Your task to perform on an android device: Open calendar and show me the fourth week of next month Image 0: 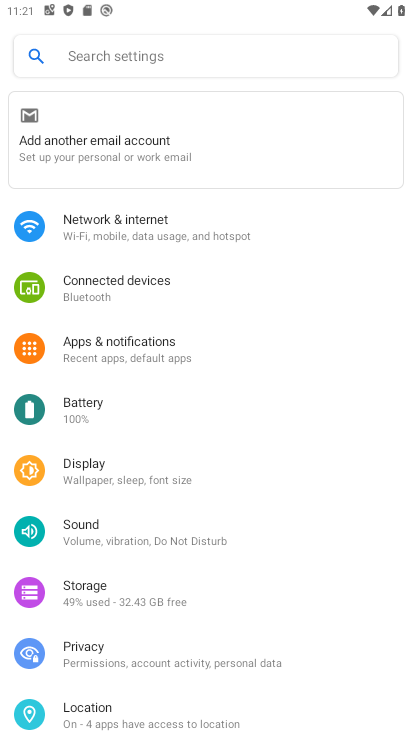
Step 0: press home button
Your task to perform on an android device: Open calendar and show me the fourth week of next month Image 1: 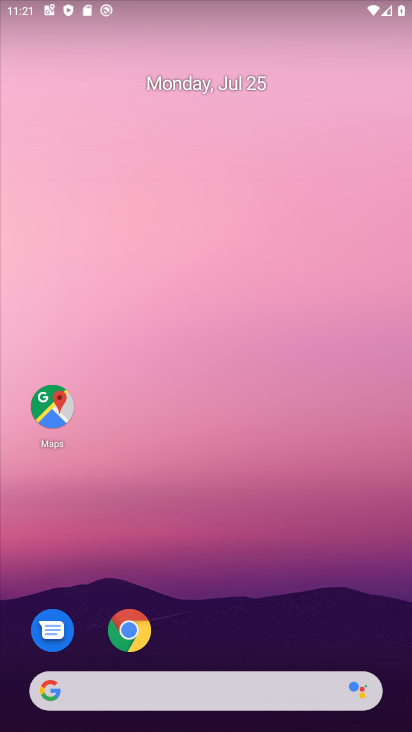
Step 1: drag from (341, 615) to (366, 165)
Your task to perform on an android device: Open calendar and show me the fourth week of next month Image 2: 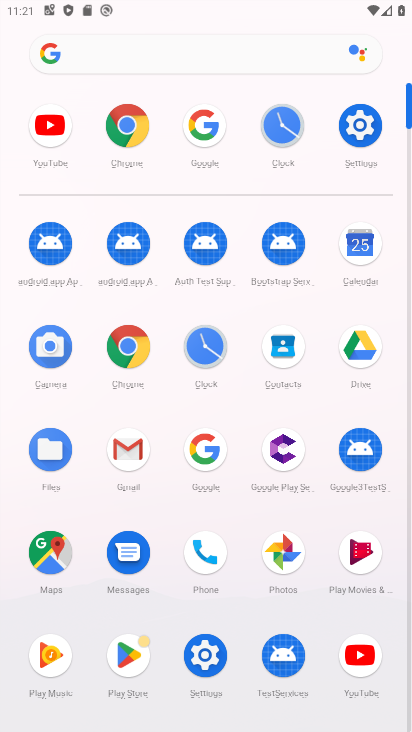
Step 2: click (356, 255)
Your task to perform on an android device: Open calendar and show me the fourth week of next month Image 3: 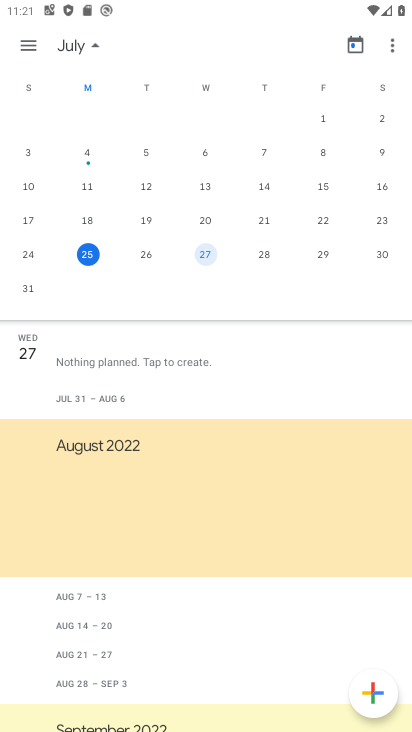
Step 3: drag from (405, 131) to (161, 119)
Your task to perform on an android device: Open calendar and show me the fourth week of next month Image 4: 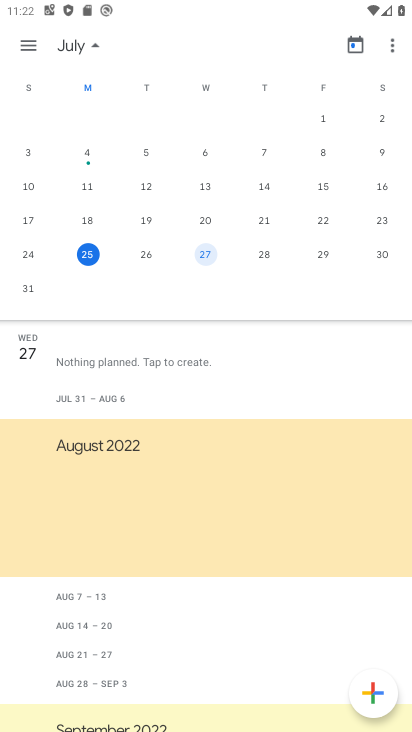
Step 4: drag from (393, 131) to (27, 114)
Your task to perform on an android device: Open calendar and show me the fourth week of next month Image 5: 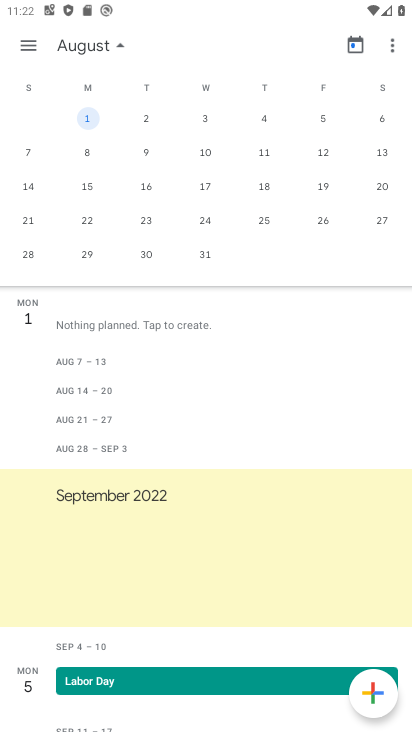
Step 5: click (83, 223)
Your task to perform on an android device: Open calendar and show me the fourth week of next month Image 6: 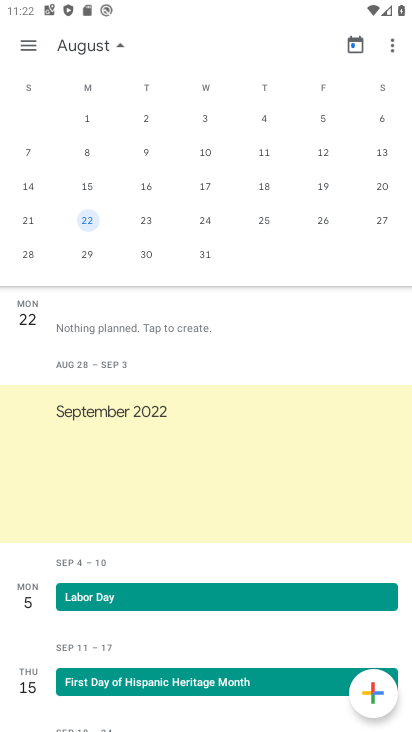
Step 6: task complete